Your task to perform on an android device: Go to accessibility settings Image 0: 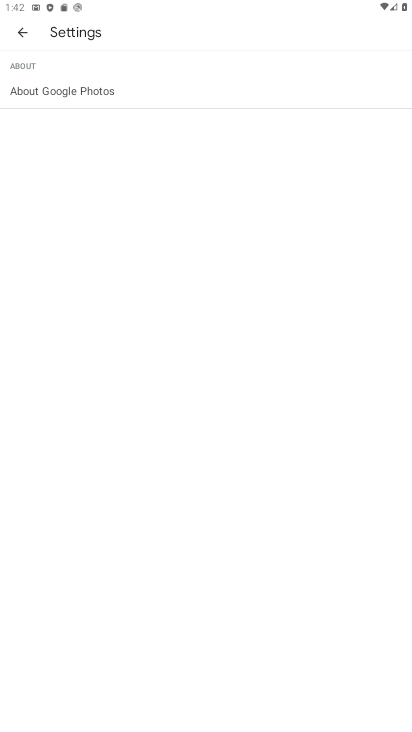
Step 0: press home button
Your task to perform on an android device: Go to accessibility settings Image 1: 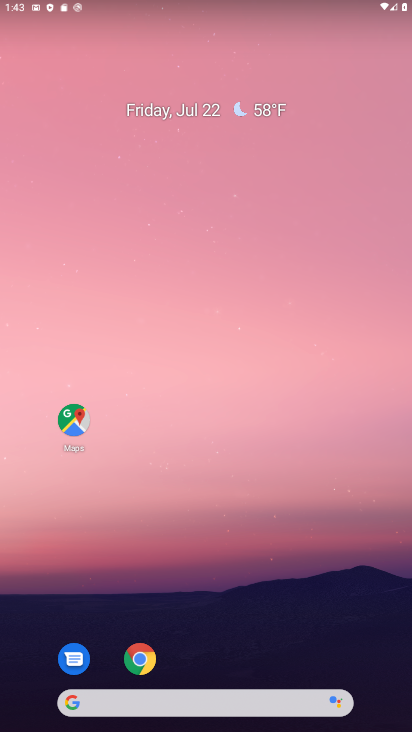
Step 1: drag from (228, 696) to (235, 57)
Your task to perform on an android device: Go to accessibility settings Image 2: 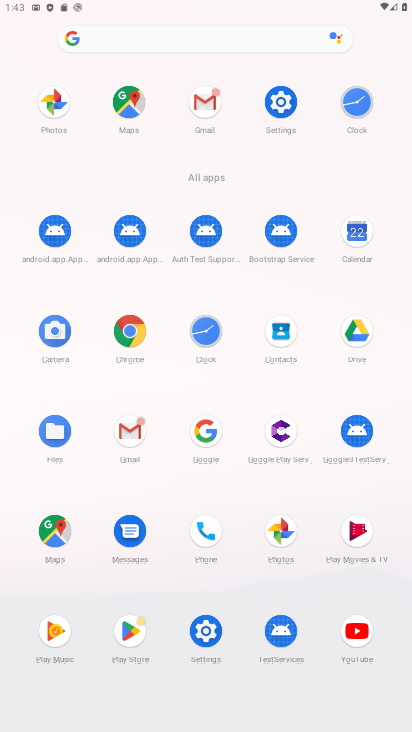
Step 2: click (289, 85)
Your task to perform on an android device: Go to accessibility settings Image 3: 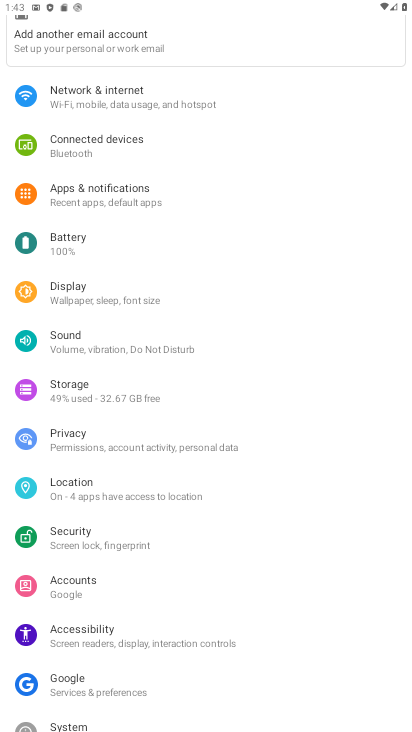
Step 3: drag from (162, 539) to (155, 197)
Your task to perform on an android device: Go to accessibility settings Image 4: 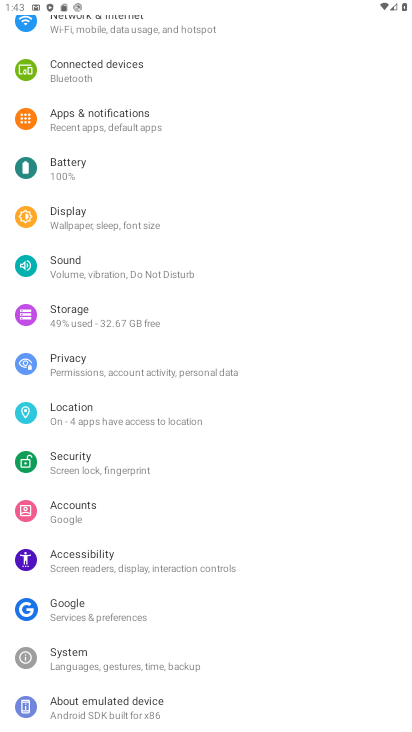
Step 4: click (105, 548)
Your task to perform on an android device: Go to accessibility settings Image 5: 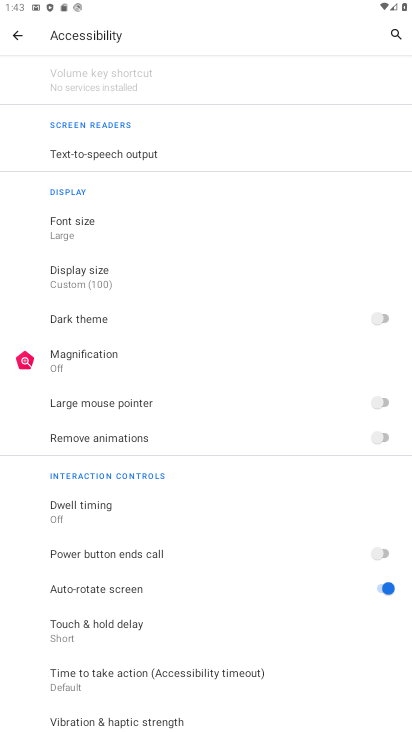
Step 5: task complete